Your task to perform on an android device: read, delete, or share a saved page in the chrome app Image 0: 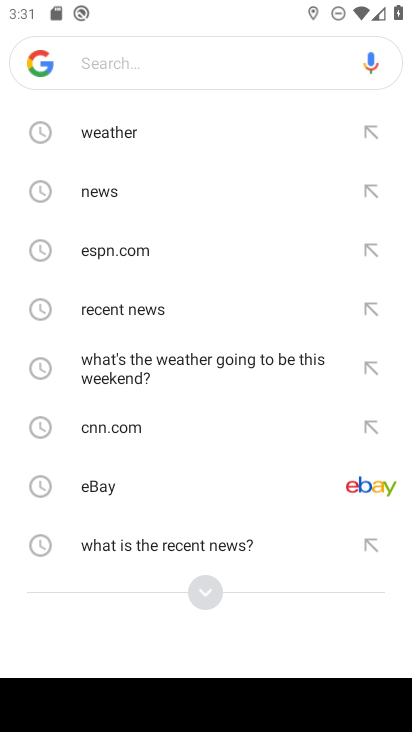
Step 0: press home button
Your task to perform on an android device: read, delete, or share a saved page in the chrome app Image 1: 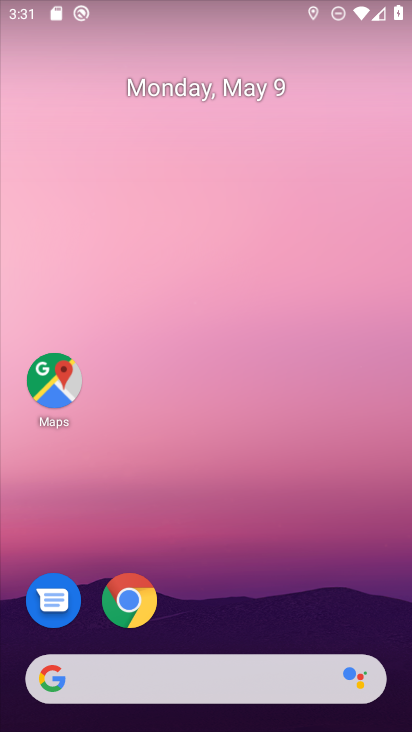
Step 1: click (124, 582)
Your task to perform on an android device: read, delete, or share a saved page in the chrome app Image 2: 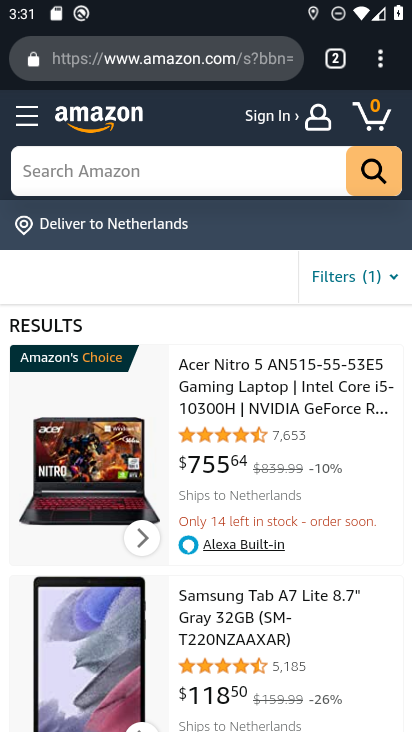
Step 2: click (377, 55)
Your task to perform on an android device: read, delete, or share a saved page in the chrome app Image 3: 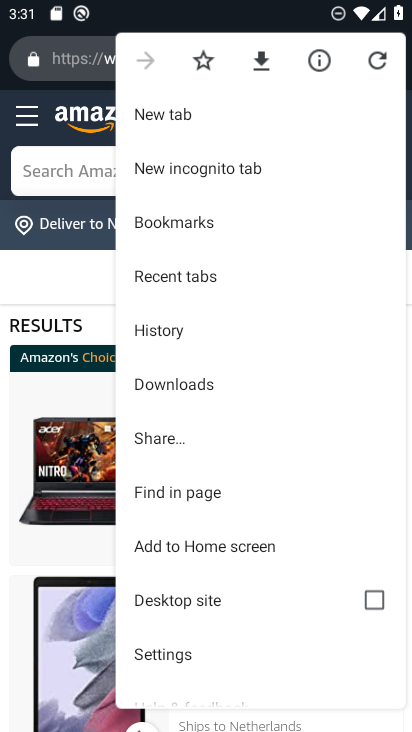
Step 3: click (174, 397)
Your task to perform on an android device: read, delete, or share a saved page in the chrome app Image 4: 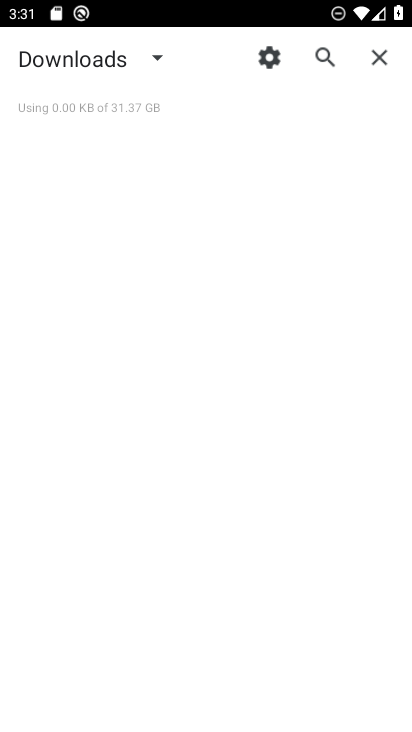
Step 4: task complete